Your task to perform on an android device: Open accessibility settings Image 0: 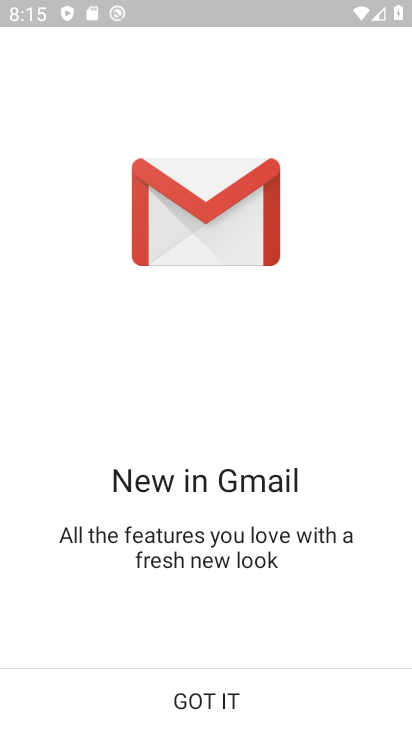
Step 0: press back button
Your task to perform on an android device: Open accessibility settings Image 1: 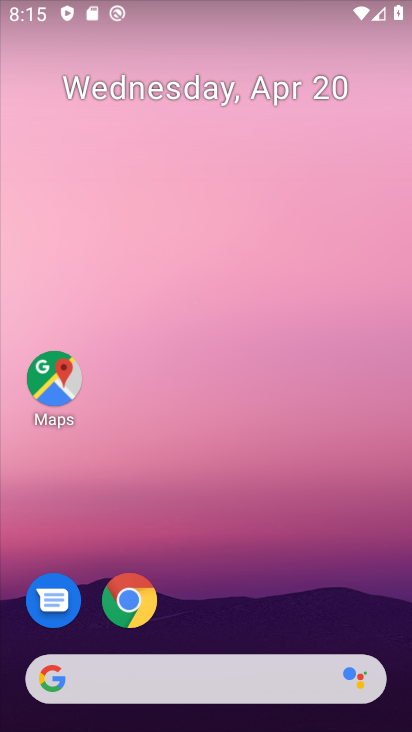
Step 1: drag from (254, 400) to (286, 21)
Your task to perform on an android device: Open accessibility settings Image 2: 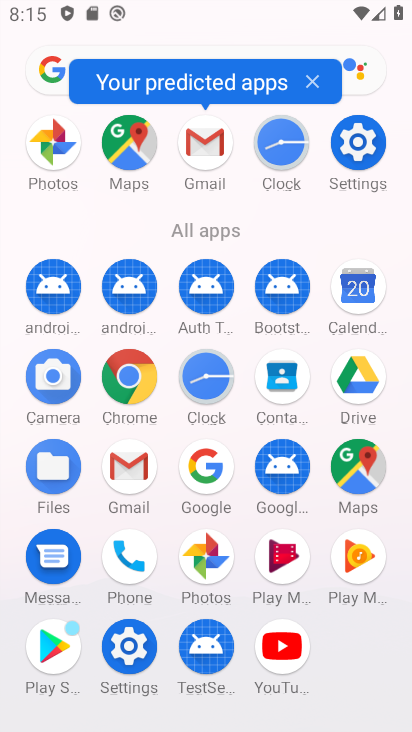
Step 2: click (363, 144)
Your task to perform on an android device: Open accessibility settings Image 3: 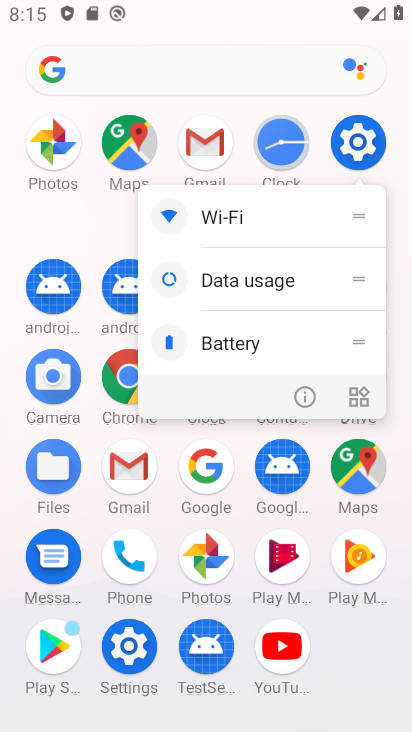
Step 3: click (360, 148)
Your task to perform on an android device: Open accessibility settings Image 4: 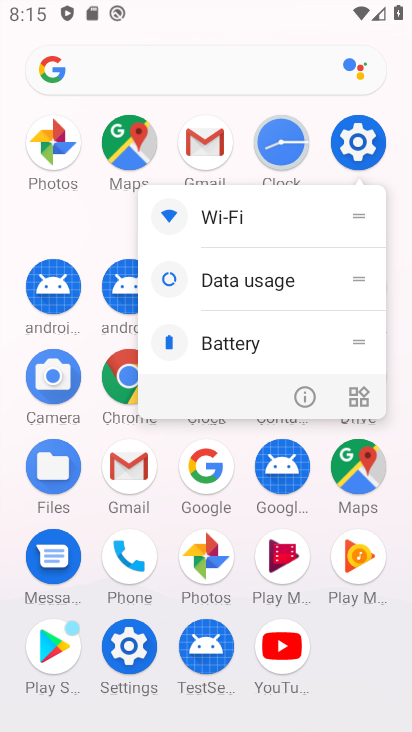
Step 4: click (363, 138)
Your task to perform on an android device: Open accessibility settings Image 5: 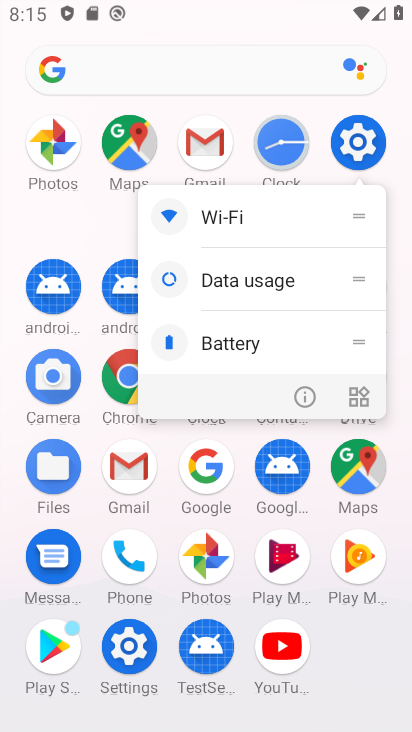
Step 5: click (362, 138)
Your task to perform on an android device: Open accessibility settings Image 6: 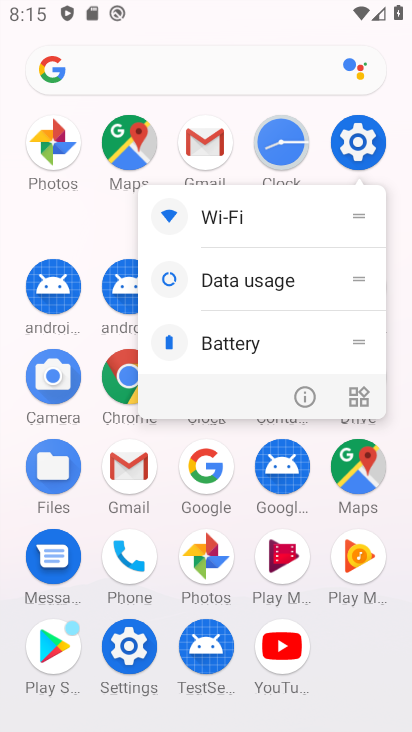
Step 6: click (340, 133)
Your task to perform on an android device: Open accessibility settings Image 7: 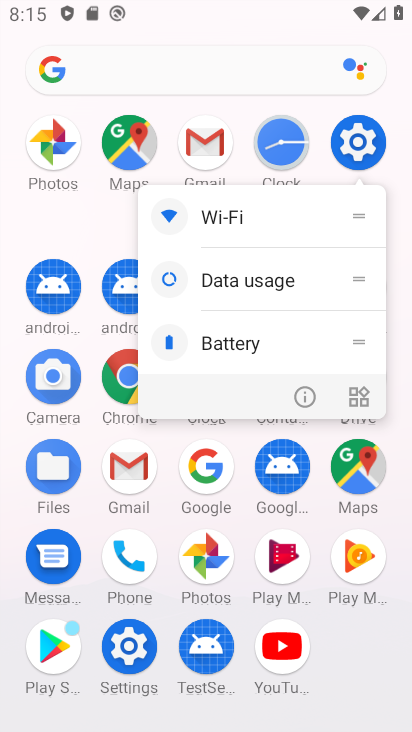
Step 7: click (375, 150)
Your task to perform on an android device: Open accessibility settings Image 8: 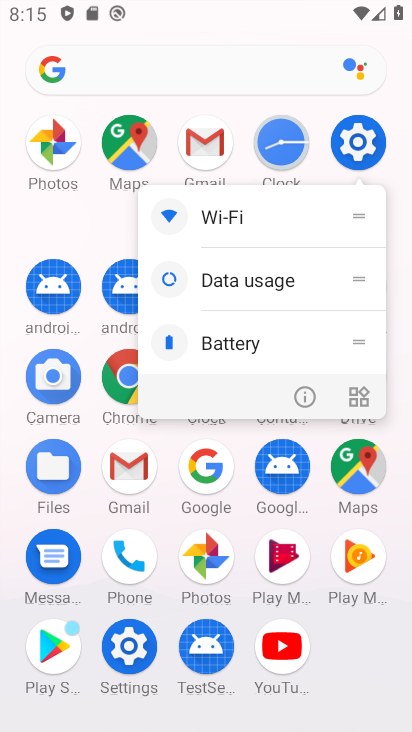
Step 8: click (382, 132)
Your task to perform on an android device: Open accessibility settings Image 9: 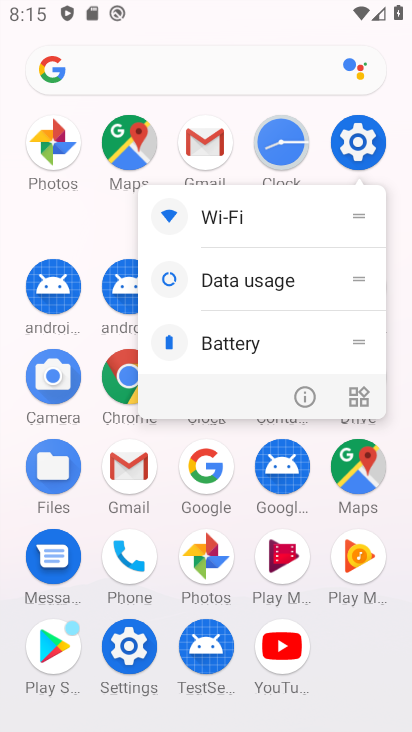
Step 9: click (359, 159)
Your task to perform on an android device: Open accessibility settings Image 10: 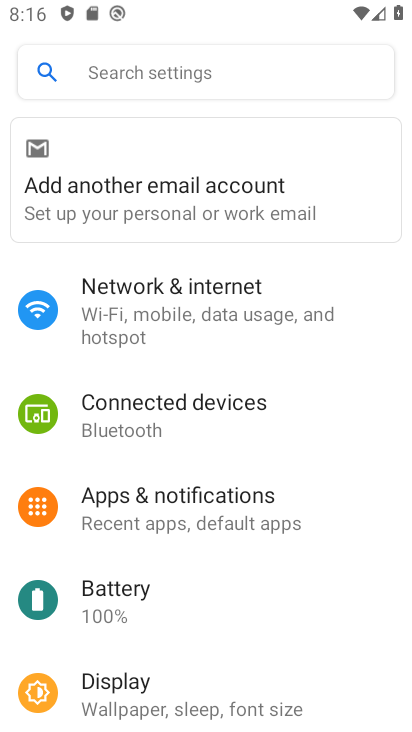
Step 10: drag from (256, 620) to (355, 221)
Your task to perform on an android device: Open accessibility settings Image 11: 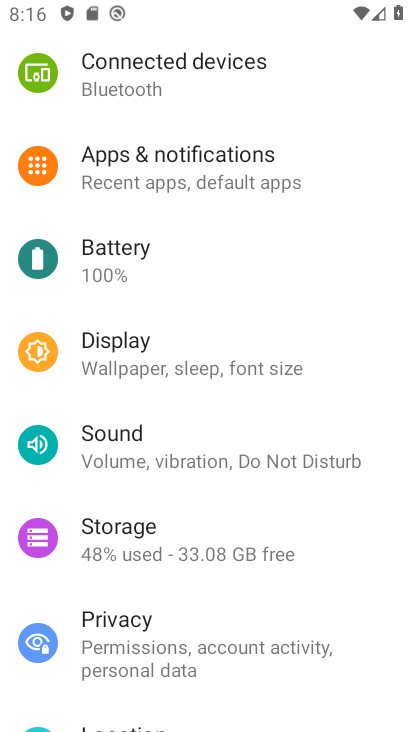
Step 11: drag from (208, 611) to (386, 110)
Your task to perform on an android device: Open accessibility settings Image 12: 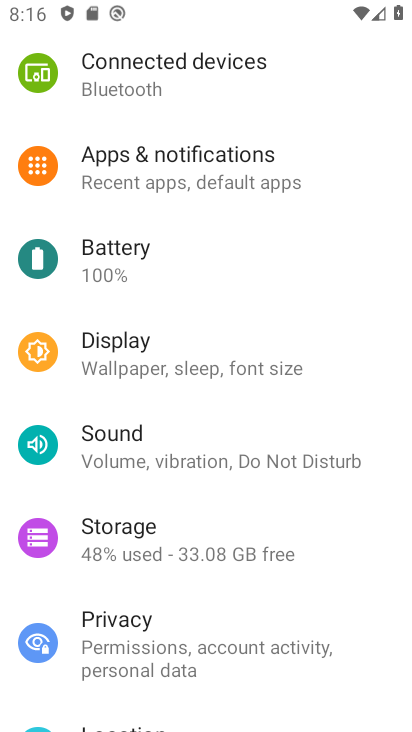
Step 12: drag from (198, 675) to (323, 141)
Your task to perform on an android device: Open accessibility settings Image 13: 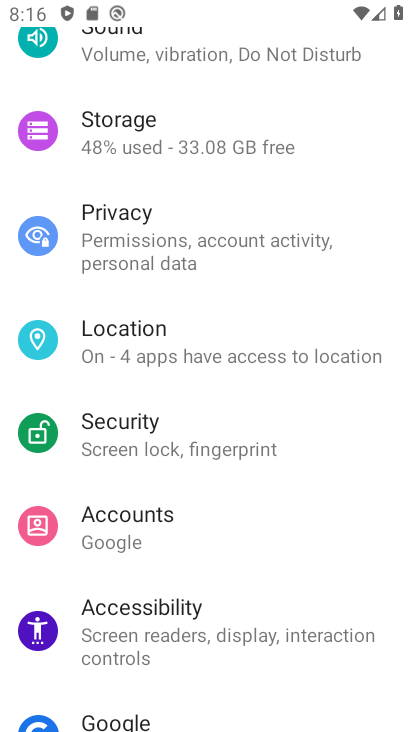
Step 13: click (215, 637)
Your task to perform on an android device: Open accessibility settings Image 14: 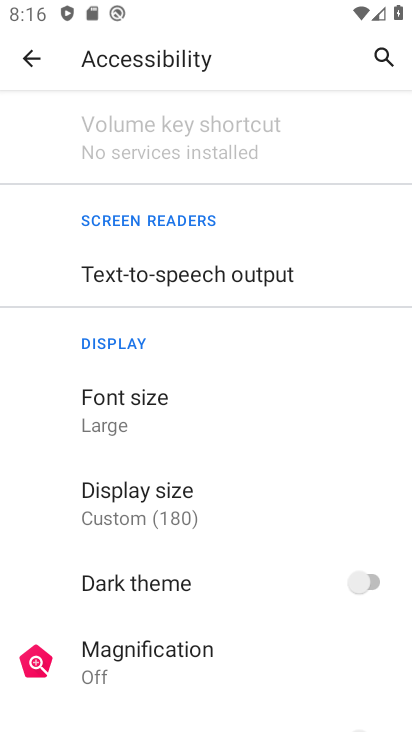
Step 14: task complete